Your task to perform on an android device: Open ESPN.com Image 0: 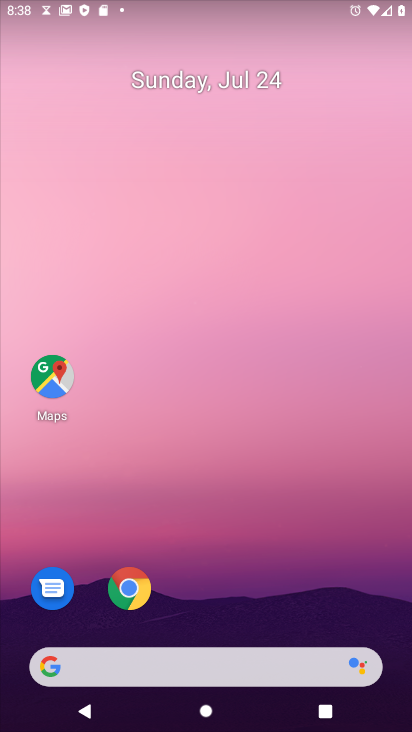
Step 0: drag from (211, 623) to (243, 50)
Your task to perform on an android device: Open ESPN.com Image 1: 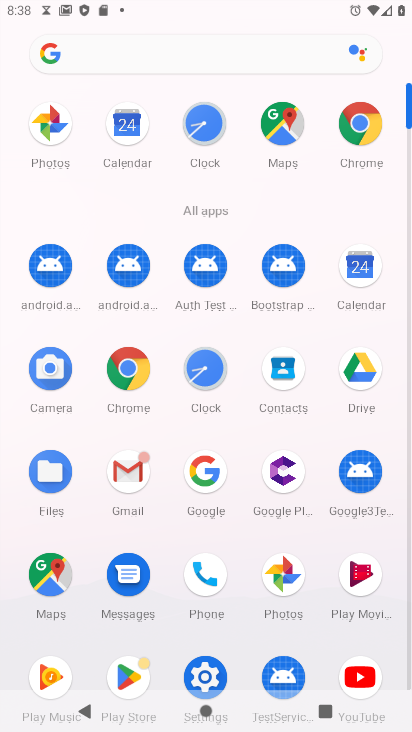
Step 1: click (119, 362)
Your task to perform on an android device: Open ESPN.com Image 2: 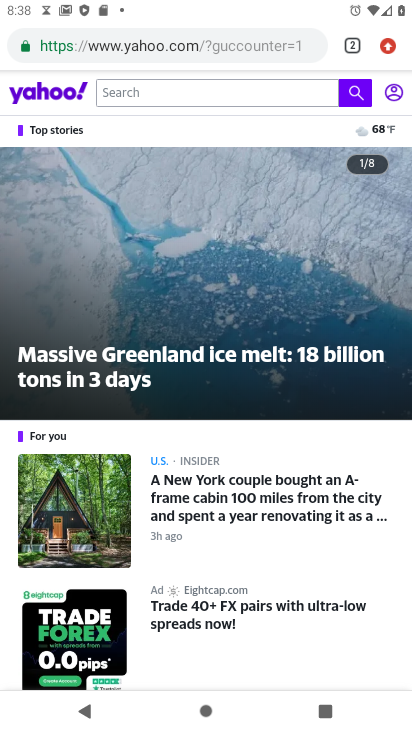
Step 2: click (352, 36)
Your task to perform on an android device: Open ESPN.com Image 3: 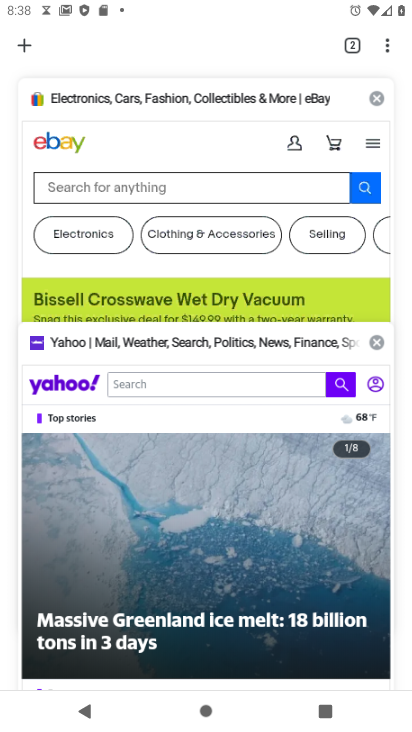
Step 3: click (30, 41)
Your task to perform on an android device: Open ESPN.com Image 4: 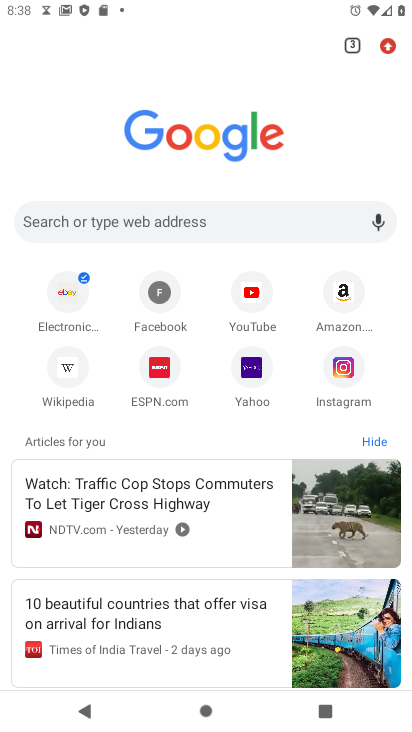
Step 4: click (157, 367)
Your task to perform on an android device: Open ESPN.com Image 5: 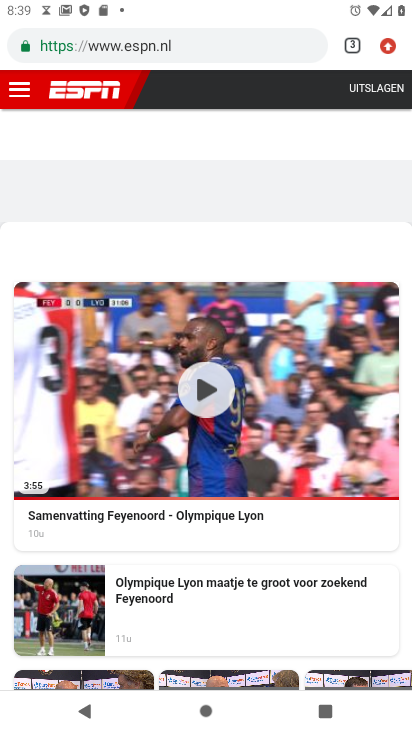
Step 5: drag from (217, 557) to (268, 71)
Your task to perform on an android device: Open ESPN.com Image 6: 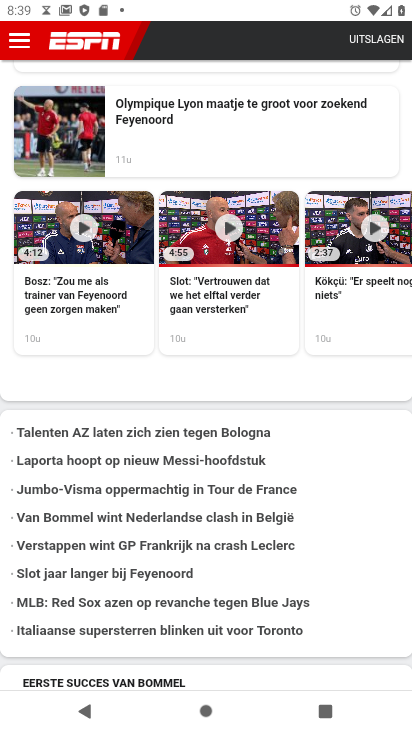
Step 6: drag from (260, 629) to (258, 119)
Your task to perform on an android device: Open ESPN.com Image 7: 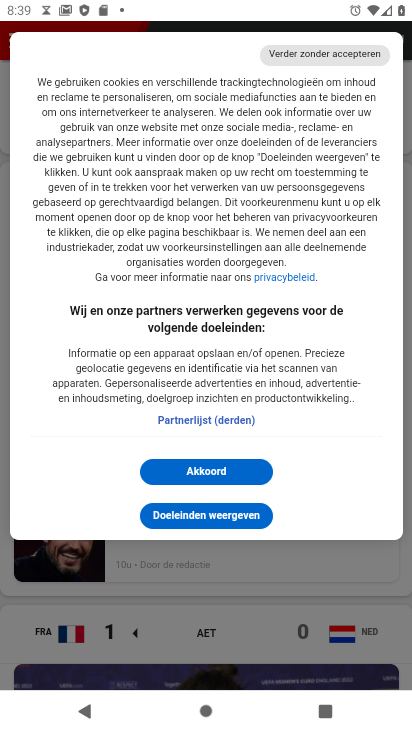
Step 7: click (206, 472)
Your task to perform on an android device: Open ESPN.com Image 8: 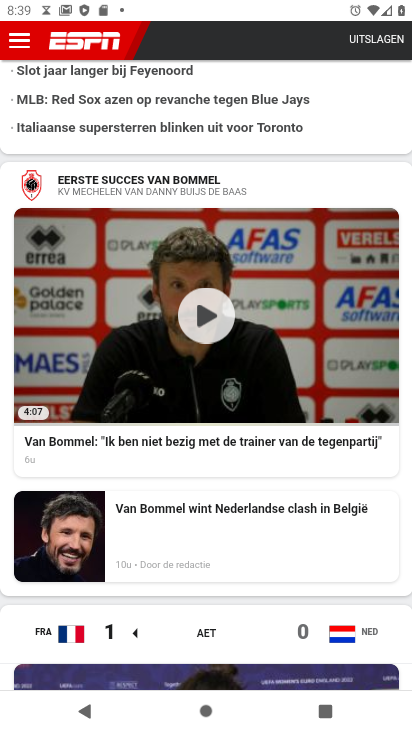
Step 8: task complete